Your task to perform on an android device: uninstall "Pandora - Music & Podcasts" Image 0: 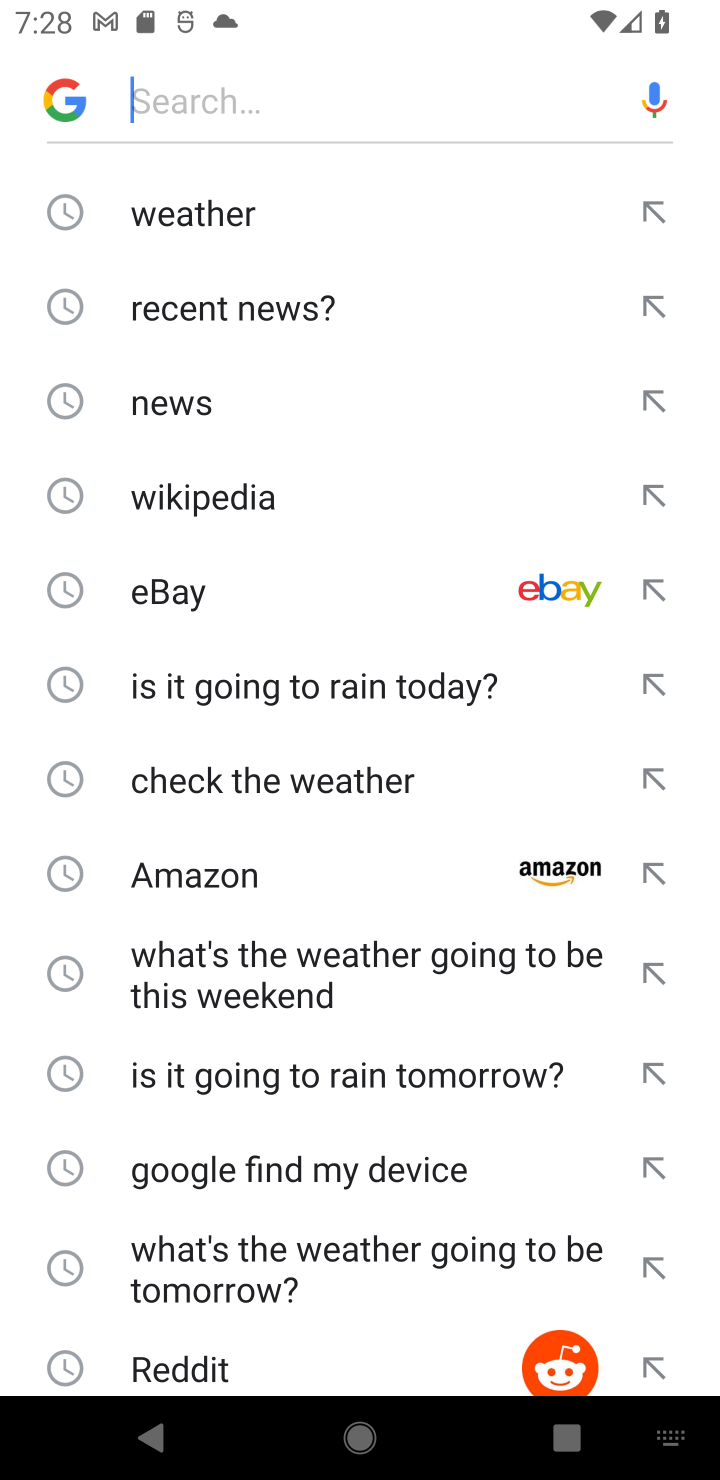
Step 0: press back button
Your task to perform on an android device: uninstall "Pandora - Music & Podcasts" Image 1: 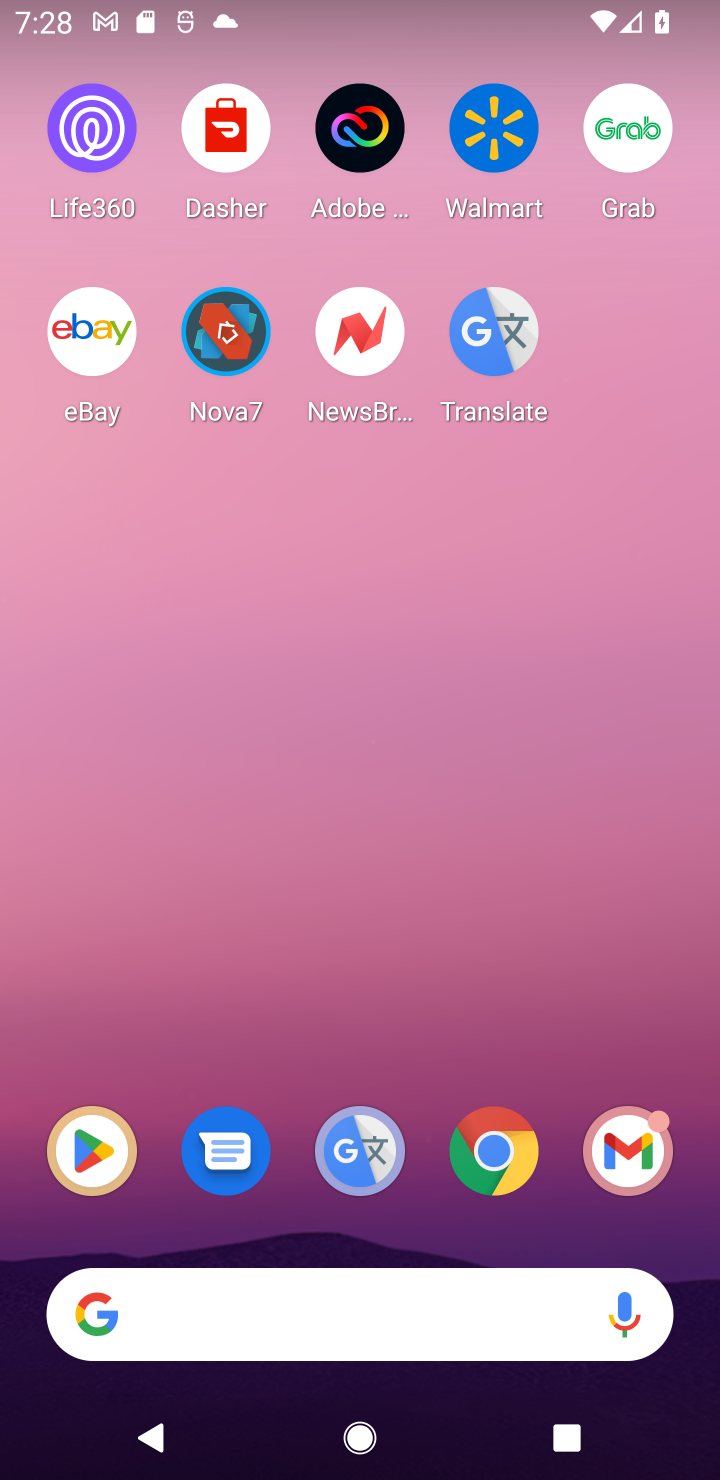
Step 1: click (93, 1147)
Your task to perform on an android device: uninstall "Pandora - Music & Podcasts" Image 2: 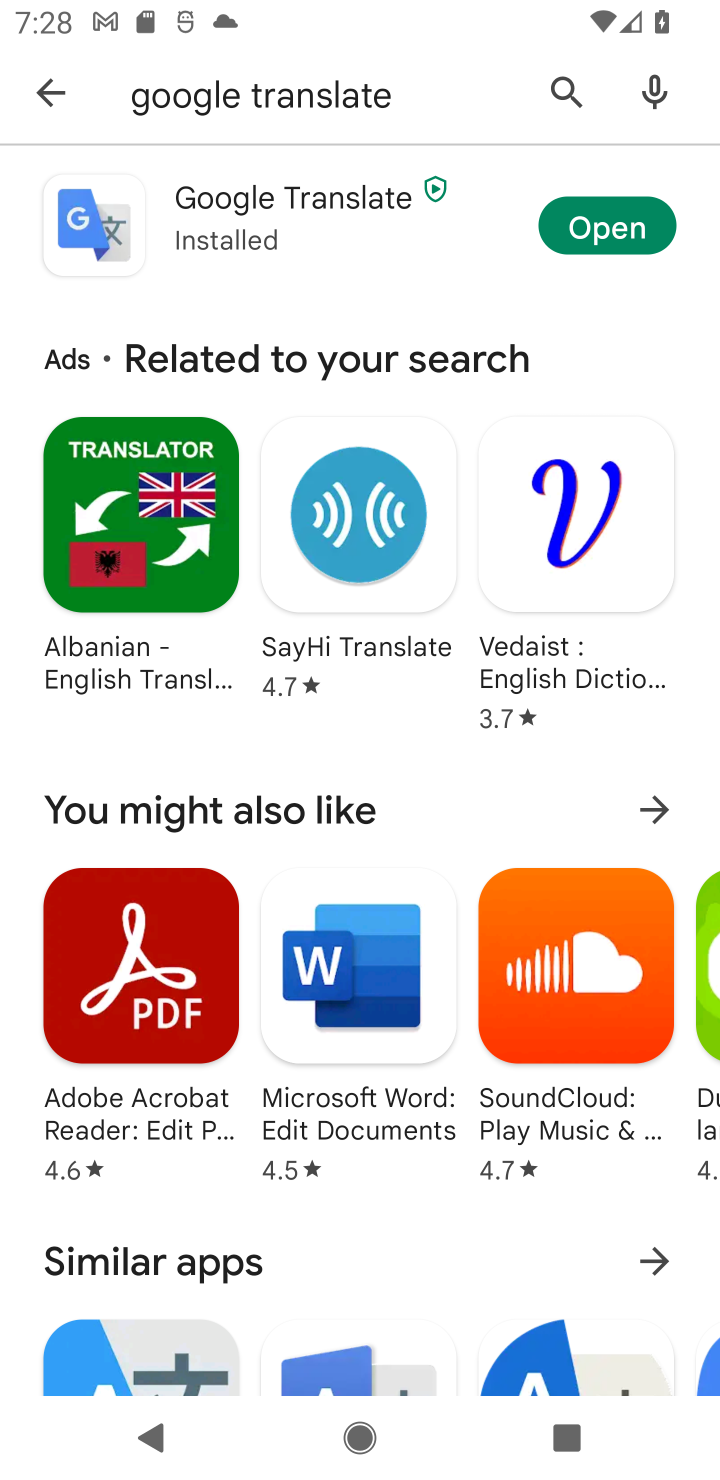
Step 2: click (571, 92)
Your task to perform on an android device: uninstall "Pandora - Music & Podcasts" Image 3: 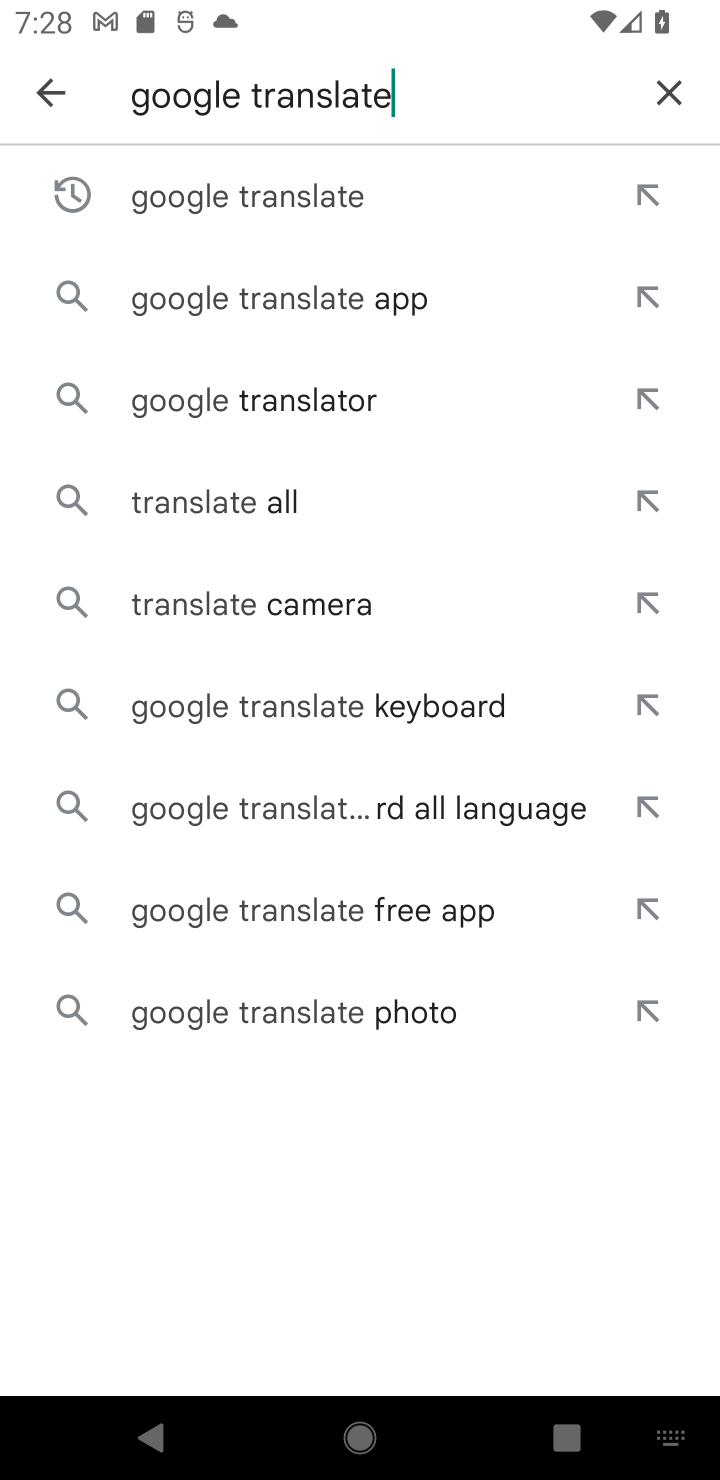
Step 3: click (655, 102)
Your task to perform on an android device: uninstall "Pandora - Music & Podcasts" Image 4: 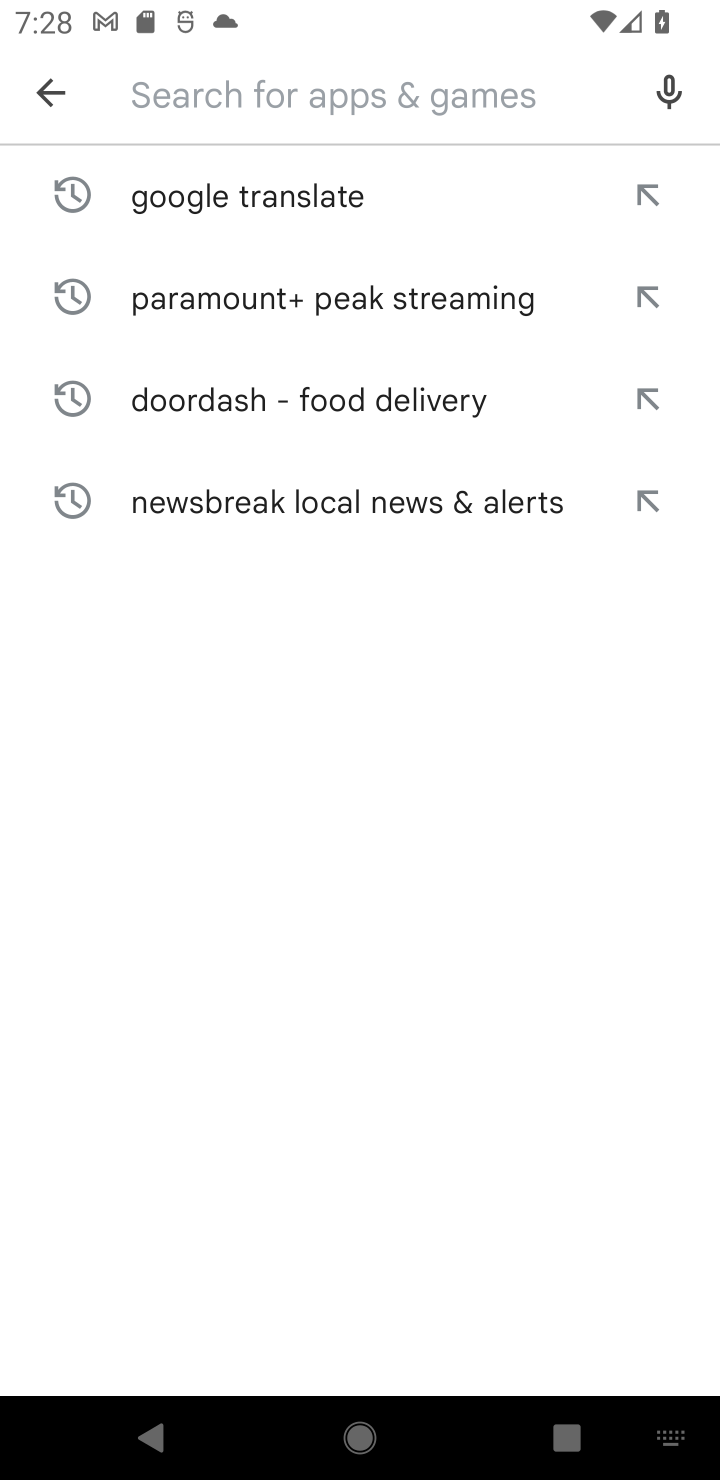
Step 4: type "Pandora - Music & Podcasts"
Your task to perform on an android device: uninstall "Pandora - Music & Podcasts" Image 5: 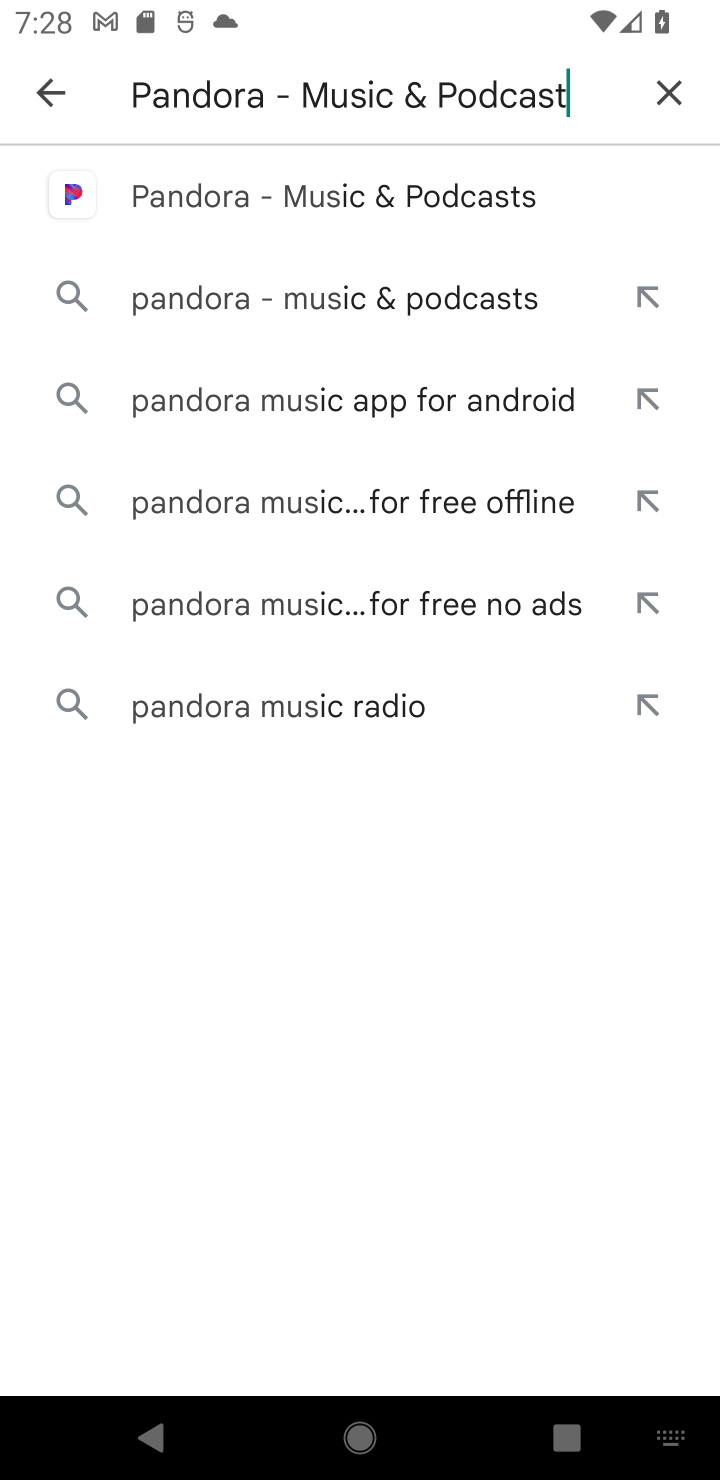
Step 5: type ""
Your task to perform on an android device: uninstall "Pandora - Music & Podcasts" Image 6: 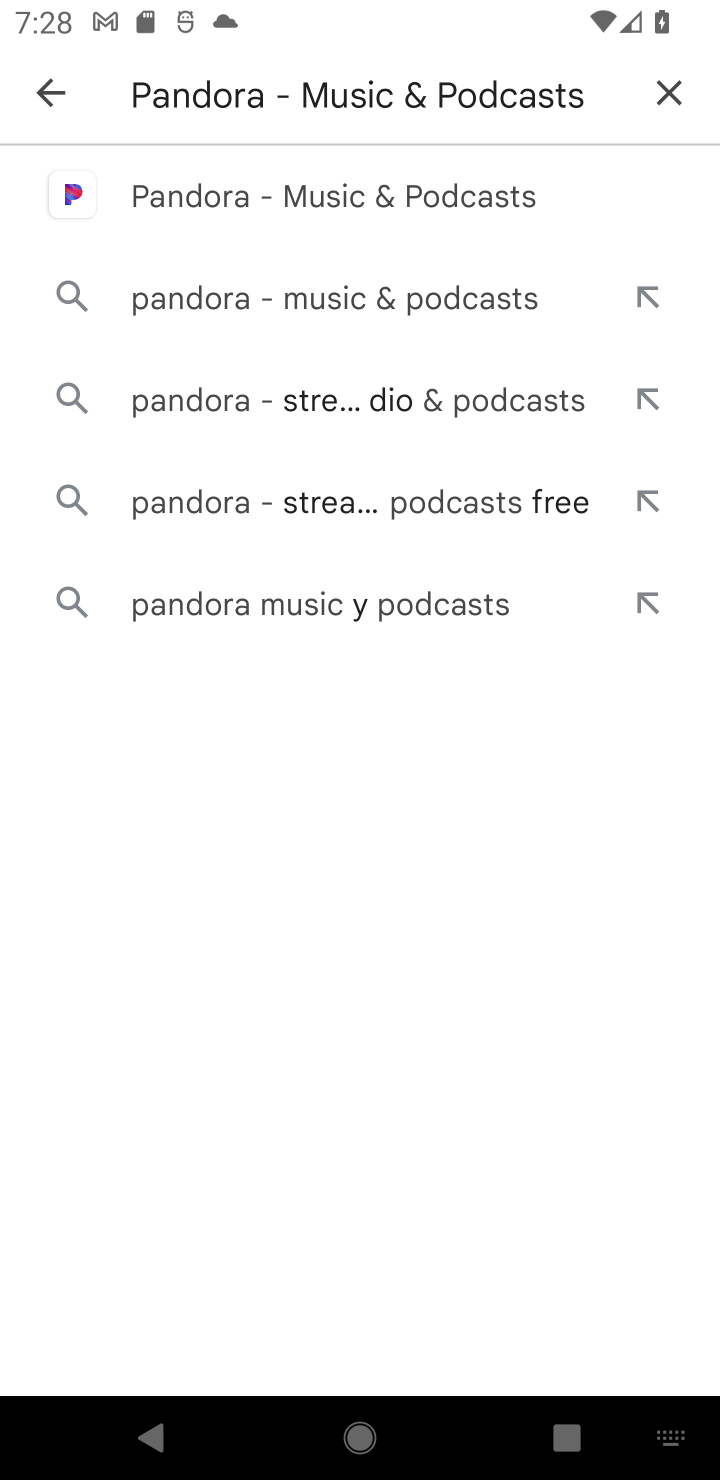
Step 6: click (299, 206)
Your task to perform on an android device: uninstall "Pandora - Music & Podcasts" Image 7: 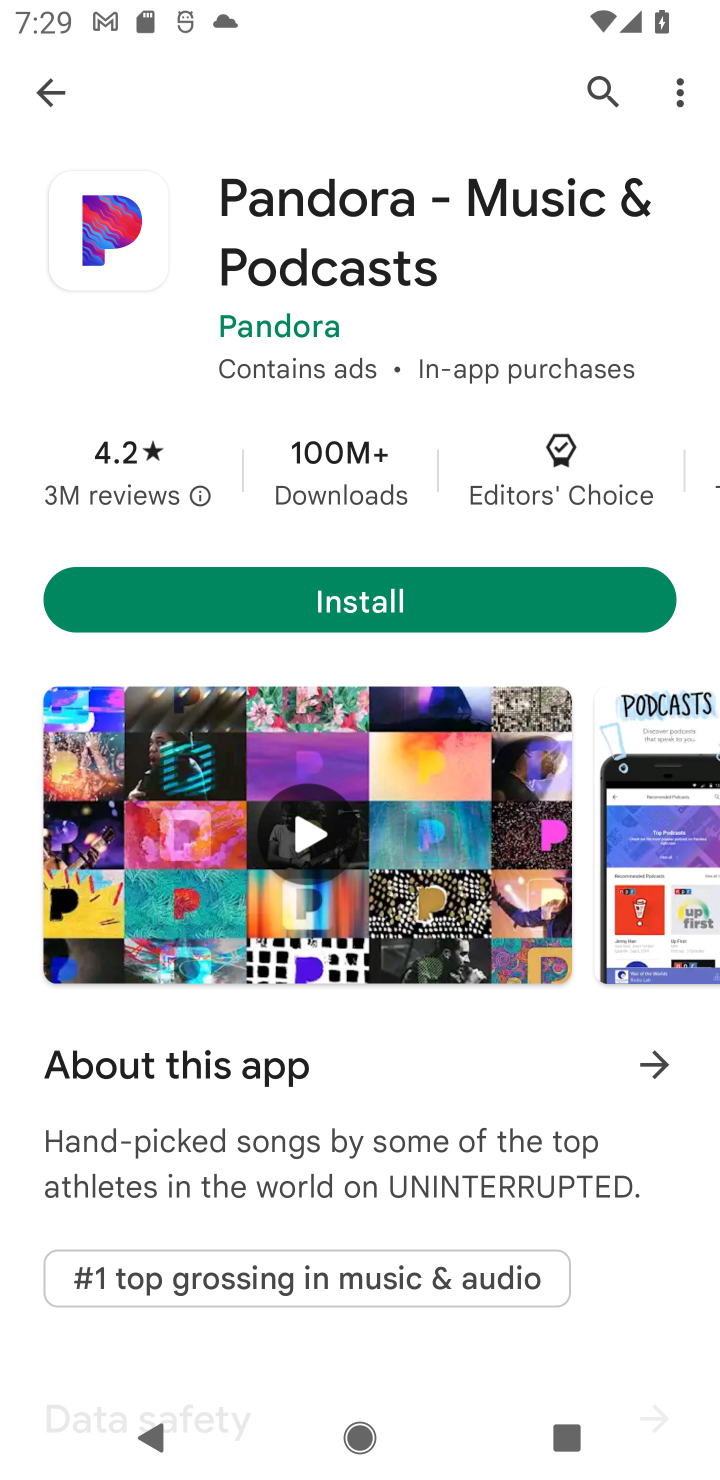
Step 7: task complete